Your task to perform on an android device: What's the weather going to be this weekend? Image 0: 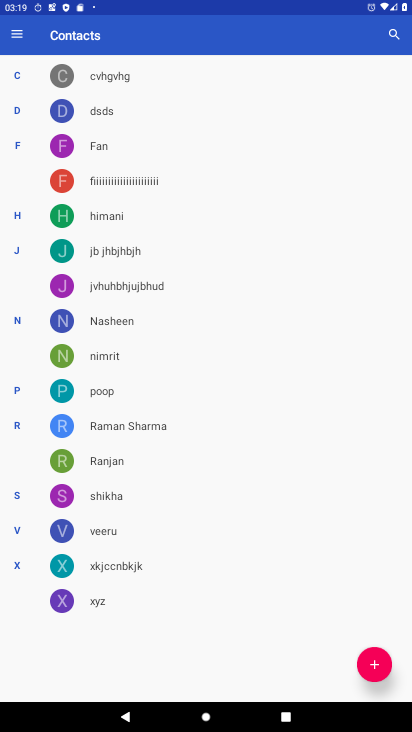
Step 0: press home button
Your task to perform on an android device: What's the weather going to be this weekend? Image 1: 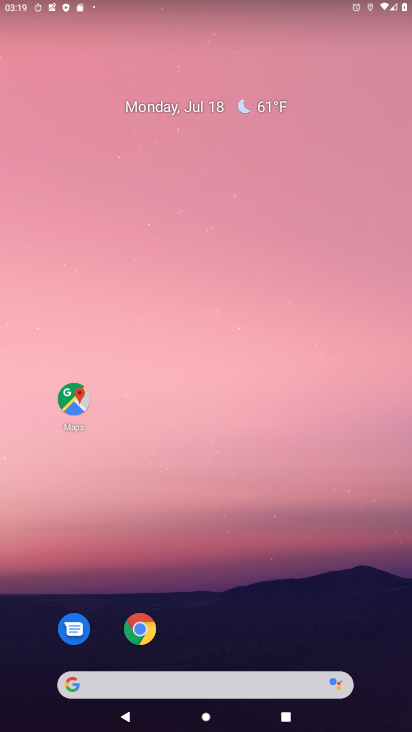
Step 1: drag from (193, 688) to (183, 110)
Your task to perform on an android device: What's the weather going to be this weekend? Image 2: 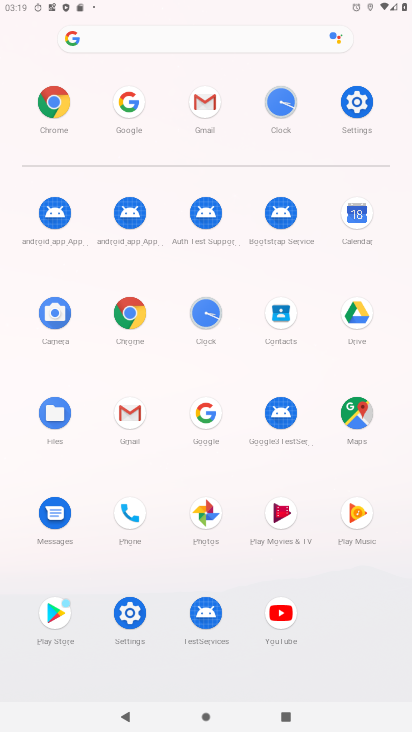
Step 2: click (125, 101)
Your task to perform on an android device: What's the weather going to be this weekend? Image 3: 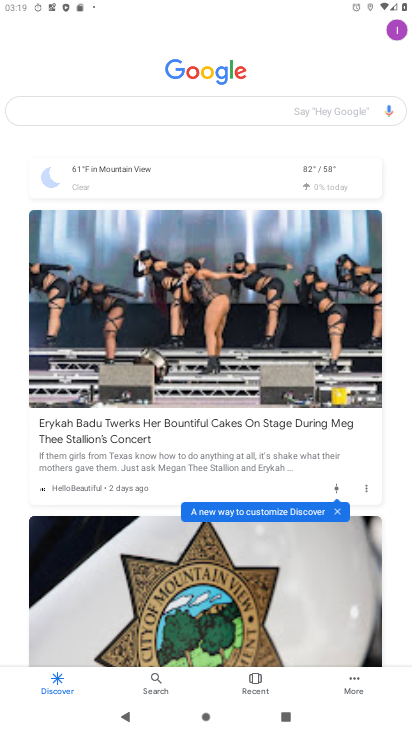
Step 3: click (229, 173)
Your task to perform on an android device: What's the weather going to be this weekend? Image 4: 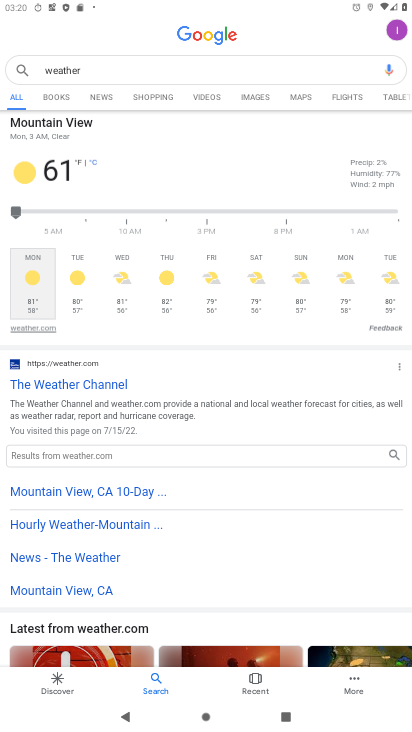
Step 4: click (253, 283)
Your task to perform on an android device: What's the weather going to be this weekend? Image 5: 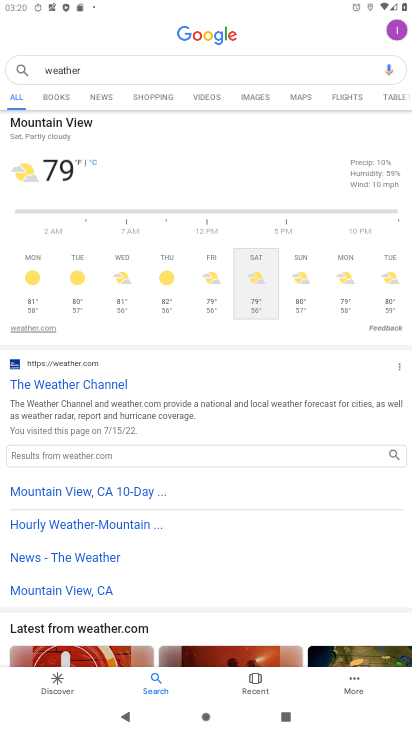
Step 5: task complete